Your task to perform on an android device: clear history in the chrome app Image 0: 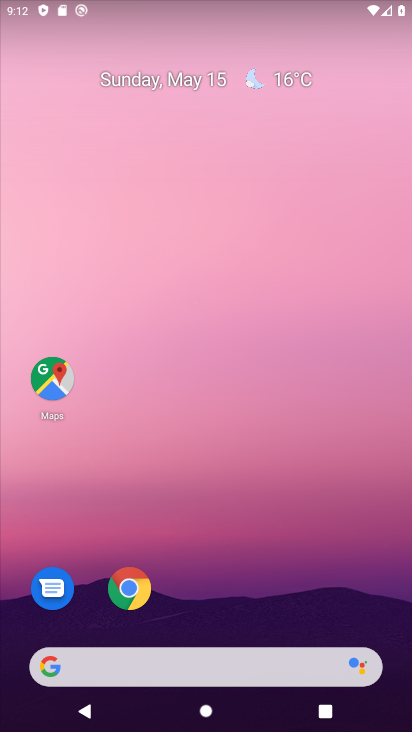
Step 0: drag from (200, 630) to (267, 148)
Your task to perform on an android device: clear history in the chrome app Image 1: 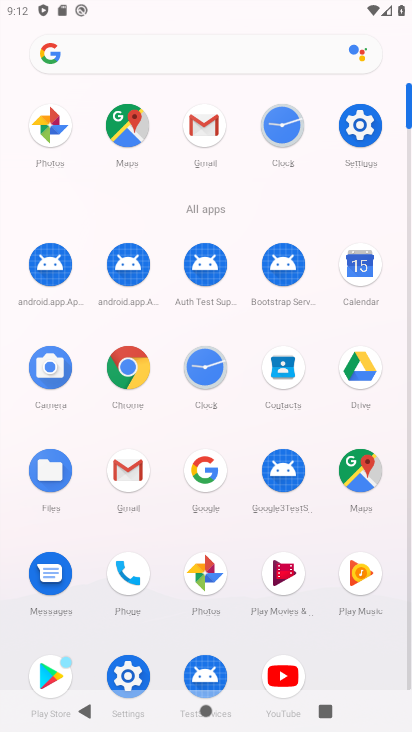
Step 1: click (131, 383)
Your task to perform on an android device: clear history in the chrome app Image 2: 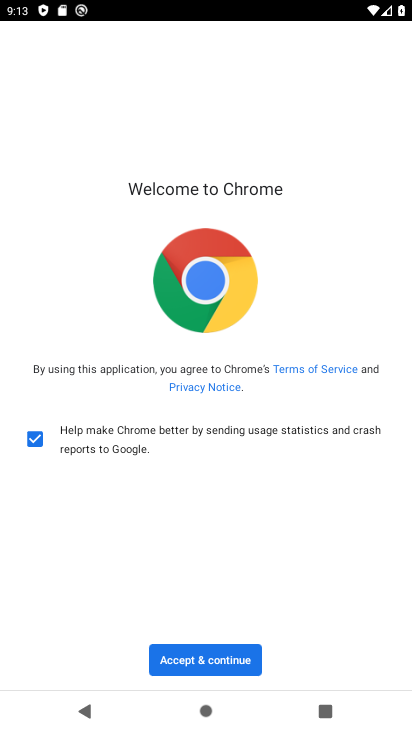
Step 2: click (223, 657)
Your task to perform on an android device: clear history in the chrome app Image 3: 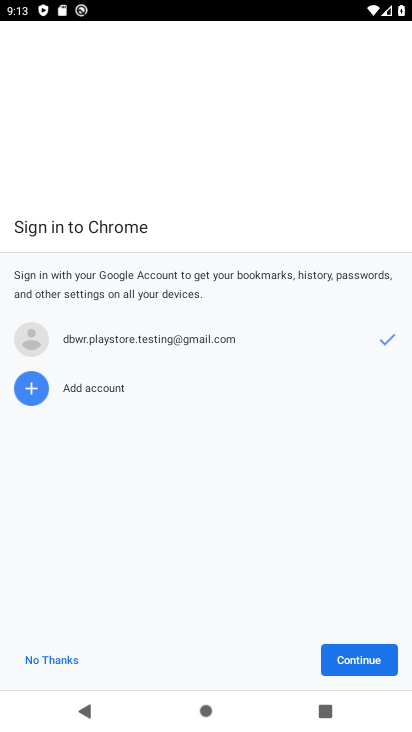
Step 3: click (356, 661)
Your task to perform on an android device: clear history in the chrome app Image 4: 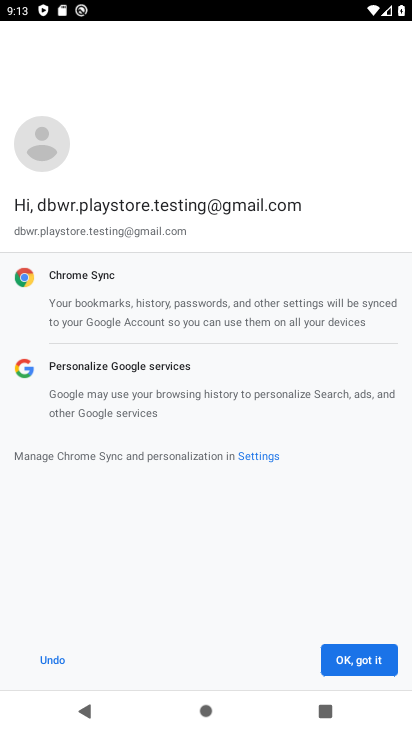
Step 4: click (354, 666)
Your task to perform on an android device: clear history in the chrome app Image 5: 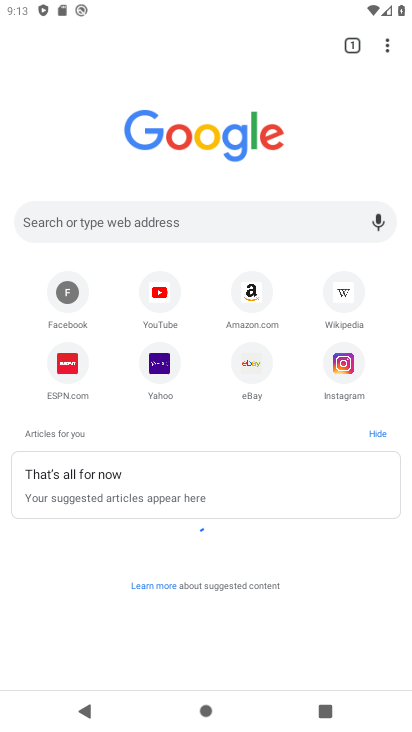
Step 5: click (385, 45)
Your task to perform on an android device: clear history in the chrome app Image 6: 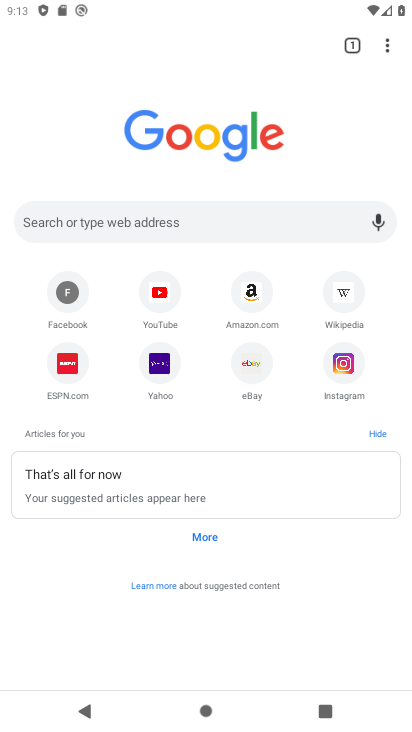
Step 6: click (388, 51)
Your task to perform on an android device: clear history in the chrome app Image 7: 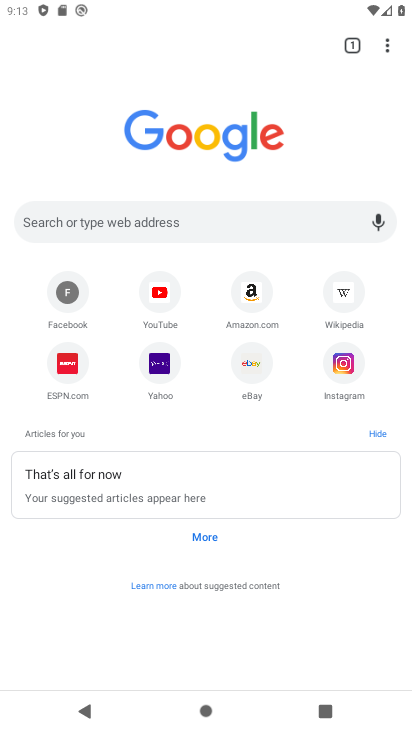
Step 7: click (393, 48)
Your task to perform on an android device: clear history in the chrome app Image 8: 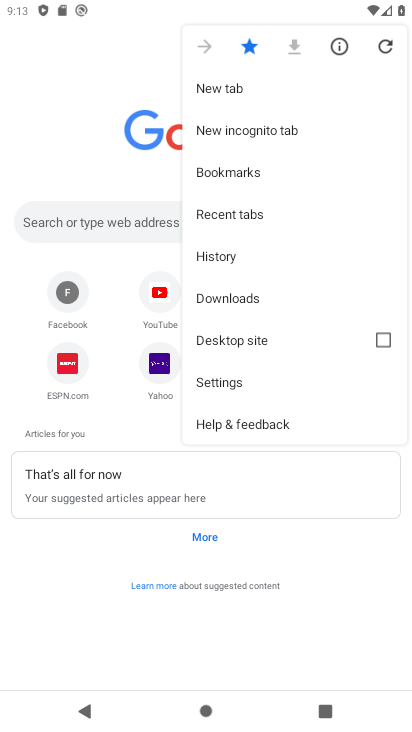
Step 8: click (221, 250)
Your task to perform on an android device: clear history in the chrome app Image 9: 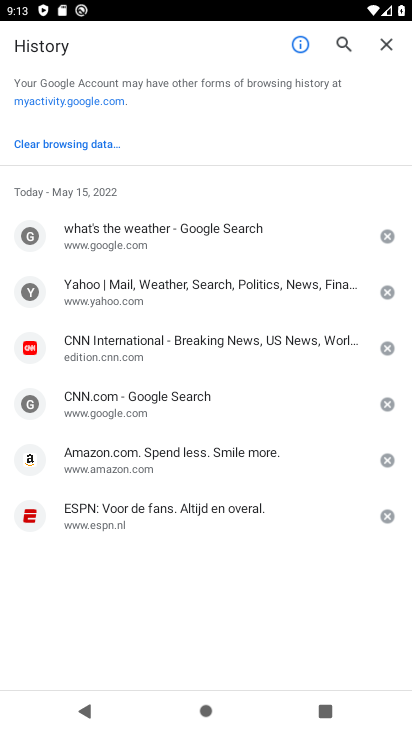
Step 9: click (66, 150)
Your task to perform on an android device: clear history in the chrome app Image 10: 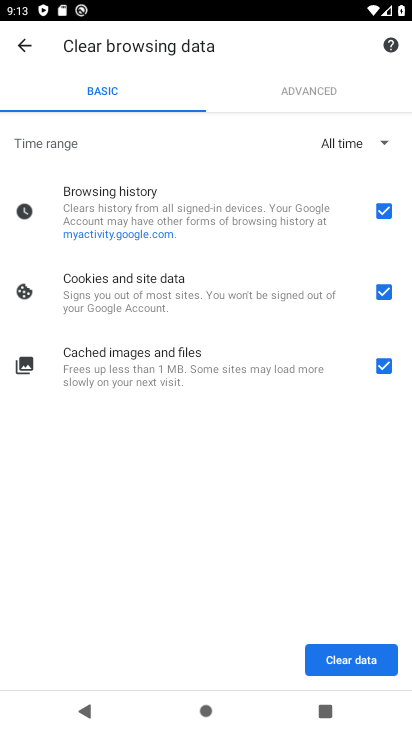
Step 10: click (384, 368)
Your task to perform on an android device: clear history in the chrome app Image 11: 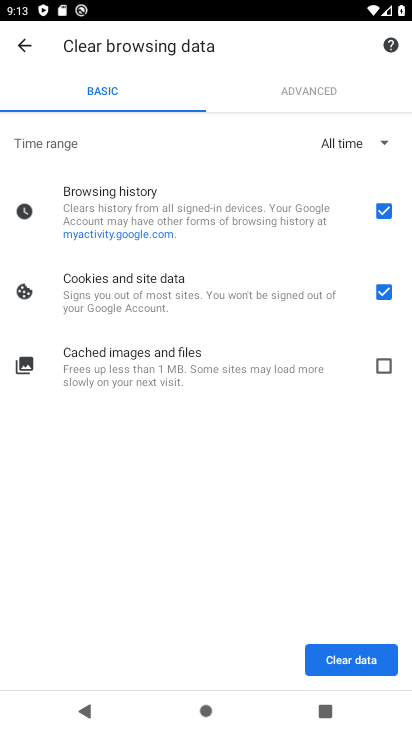
Step 11: click (379, 280)
Your task to perform on an android device: clear history in the chrome app Image 12: 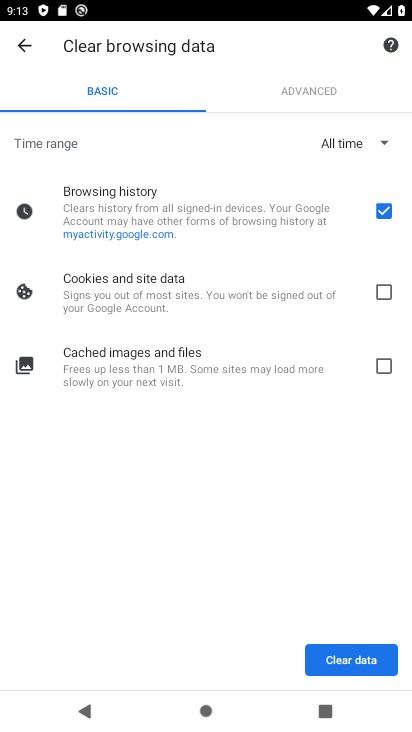
Step 12: click (362, 658)
Your task to perform on an android device: clear history in the chrome app Image 13: 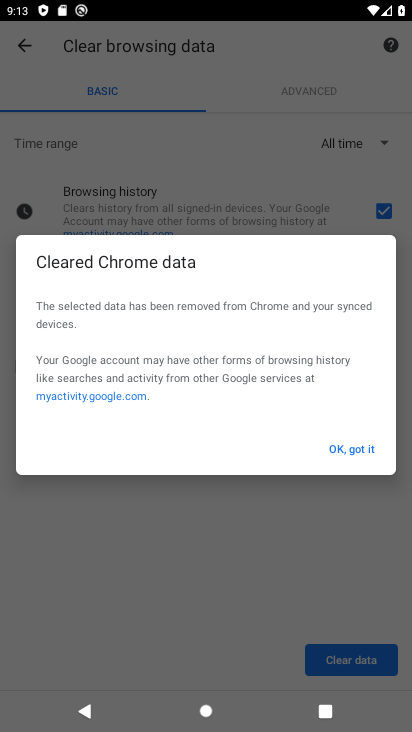
Step 13: click (342, 457)
Your task to perform on an android device: clear history in the chrome app Image 14: 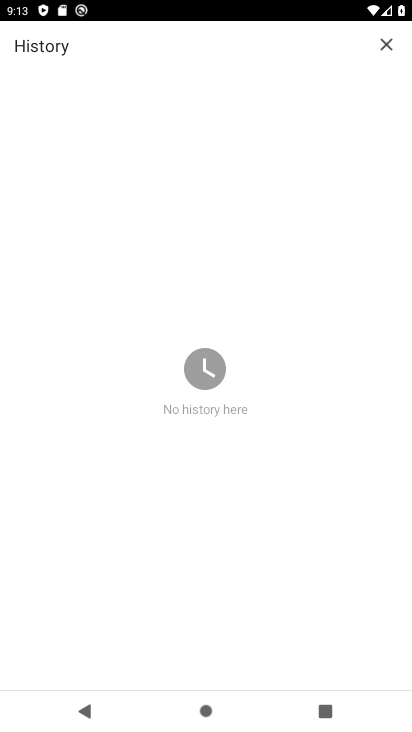
Step 14: task complete